Your task to perform on an android device: Open the web browser Image 0: 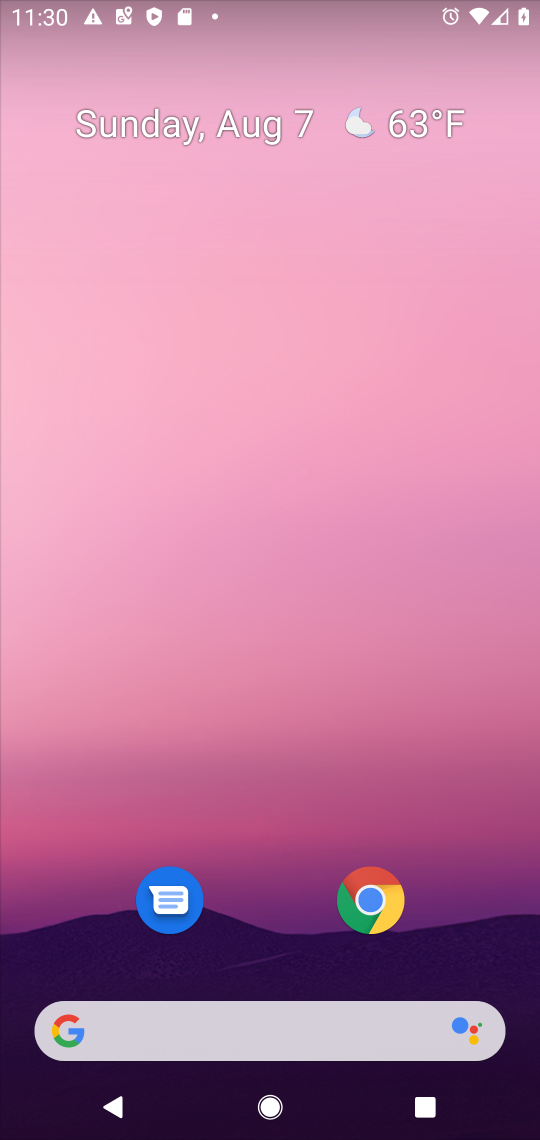
Step 0: drag from (295, 959) to (249, 138)
Your task to perform on an android device: Open the web browser Image 1: 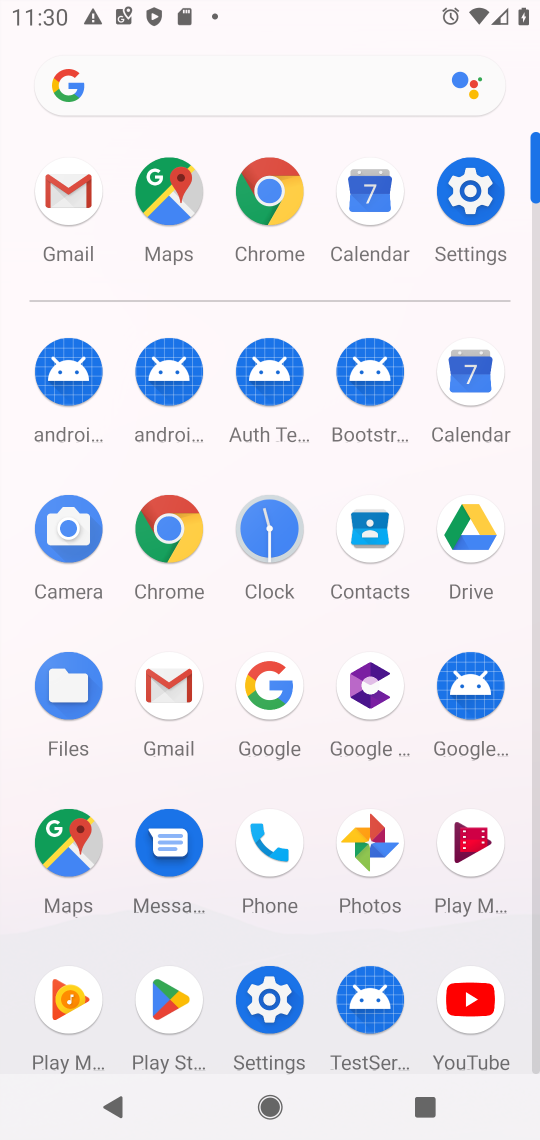
Step 1: click (259, 187)
Your task to perform on an android device: Open the web browser Image 2: 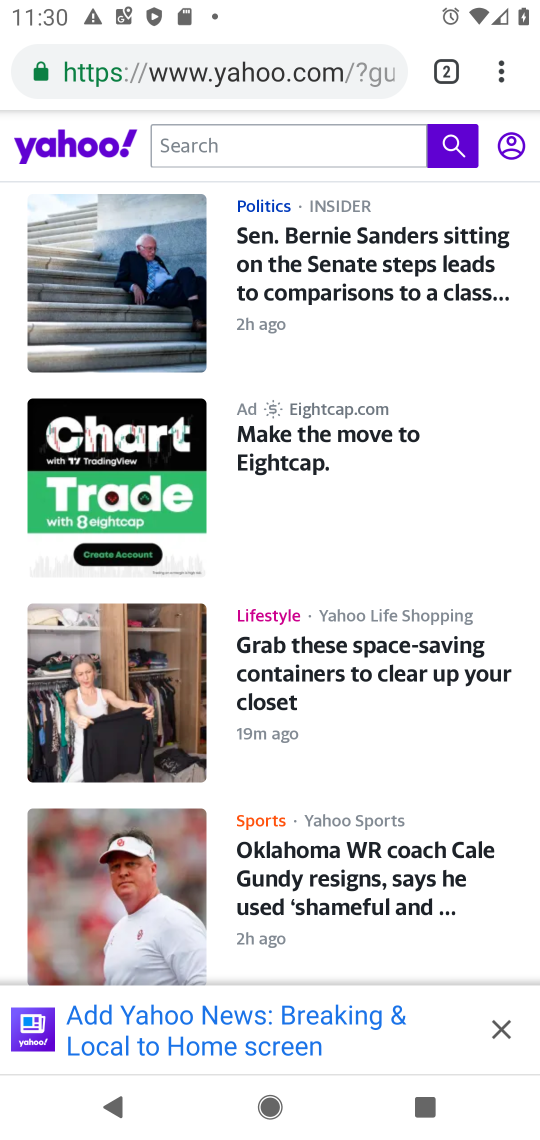
Step 2: click (454, 72)
Your task to perform on an android device: Open the web browser Image 3: 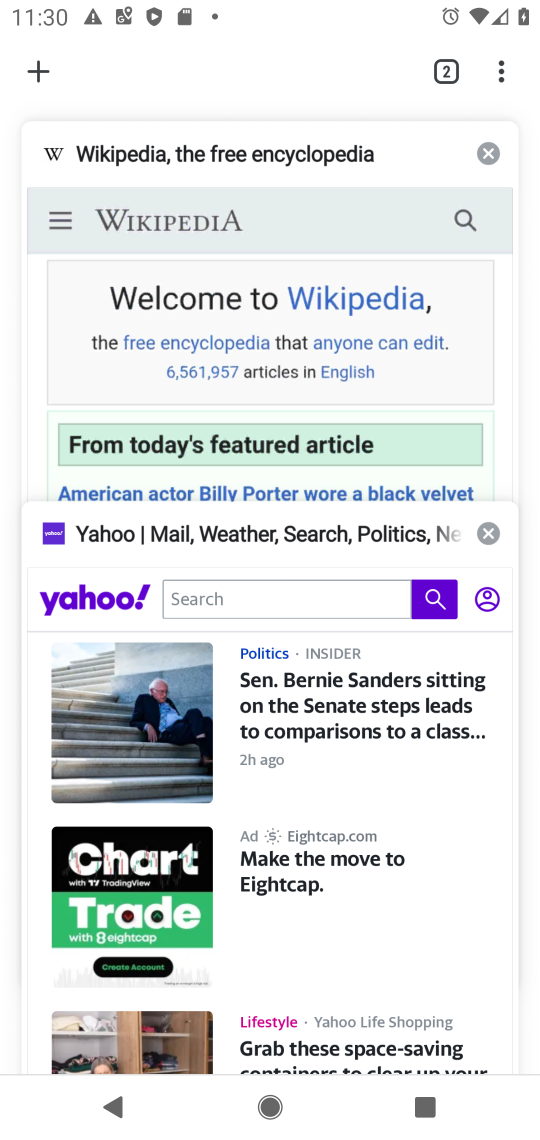
Step 3: click (45, 72)
Your task to perform on an android device: Open the web browser Image 4: 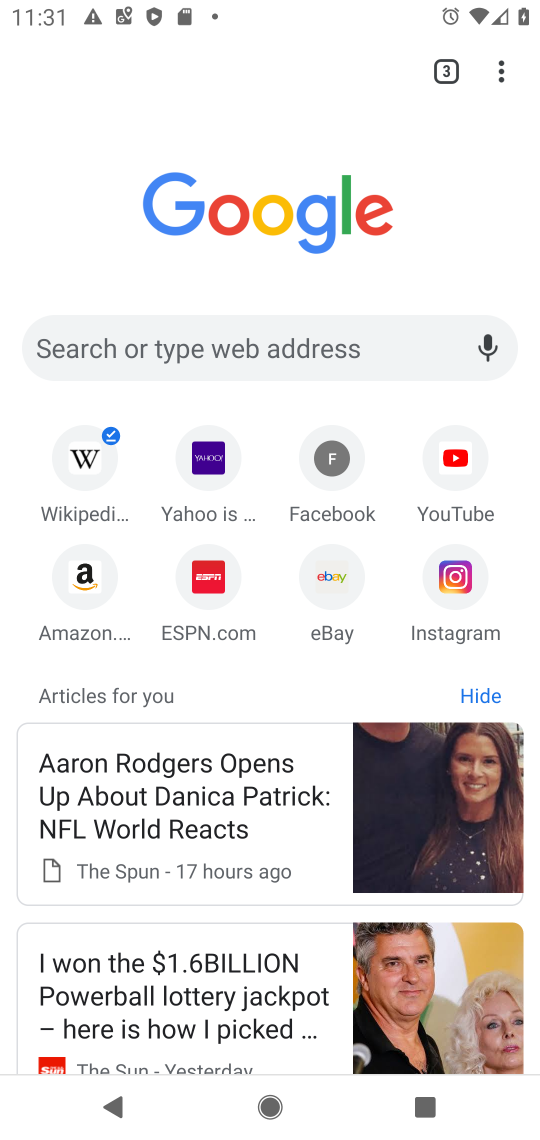
Step 4: task complete